Your task to perform on an android device: star an email in the gmail app Image 0: 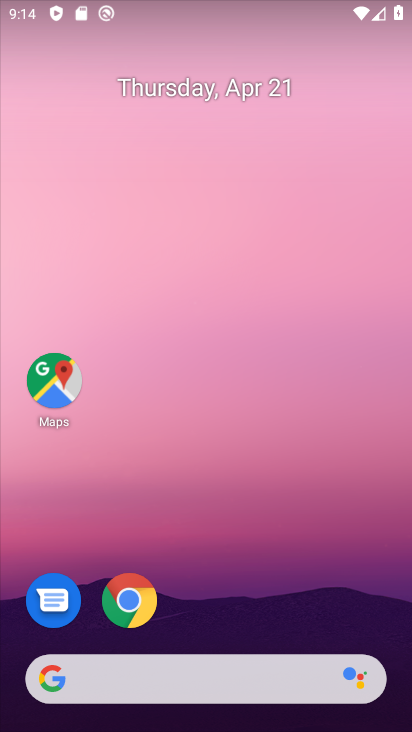
Step 0: drag from (265, 578) to (251, 99)
Your task to perform on an android device: star an email in the gmail app Image 1: 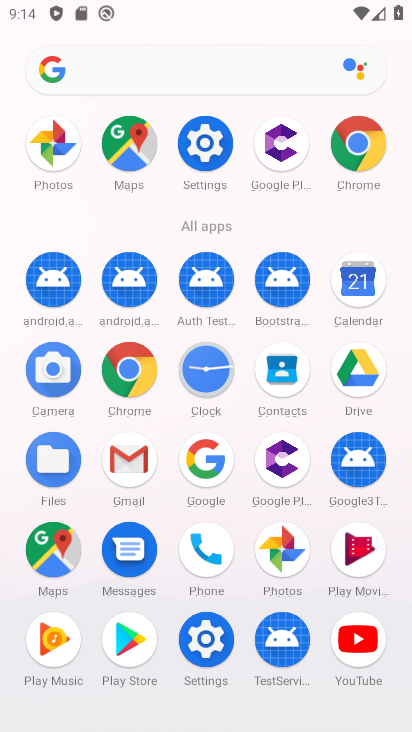
Step 1: click (136, 450)
Your task to perform on an android device: star an email in the gmail app Image 2: 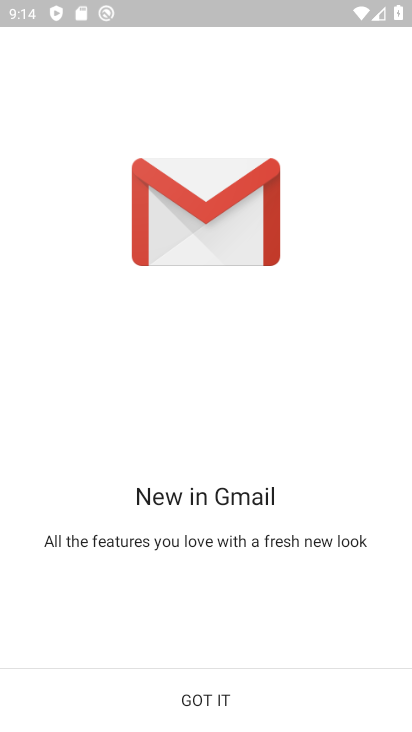
Step 2: click (207, 705)
Your task to perform on an android device: star an email in the gmail app Image 3: 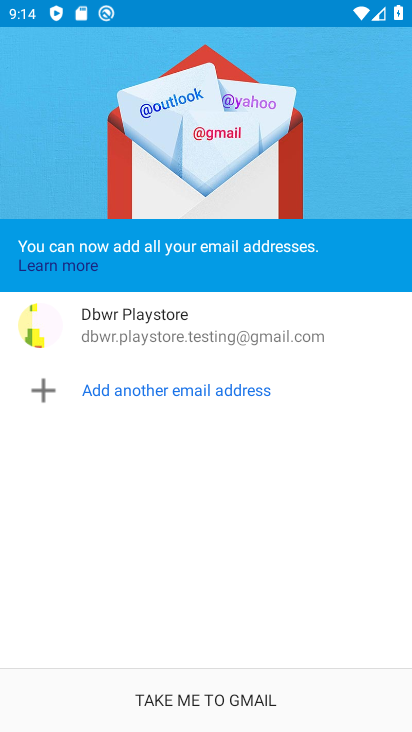
Step 3: click (186, 701)
Your task to perform on an android device: star an email in the gmail app Image 4: 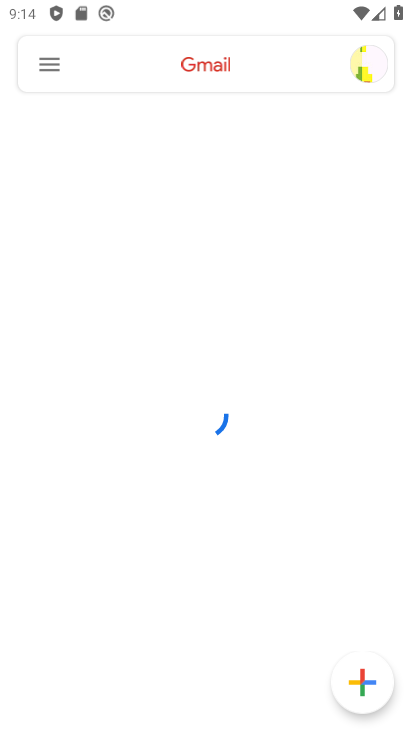
Step 4: click (47, 65)
Your task to perform on an android device: star an email in the gmail app Image 5: 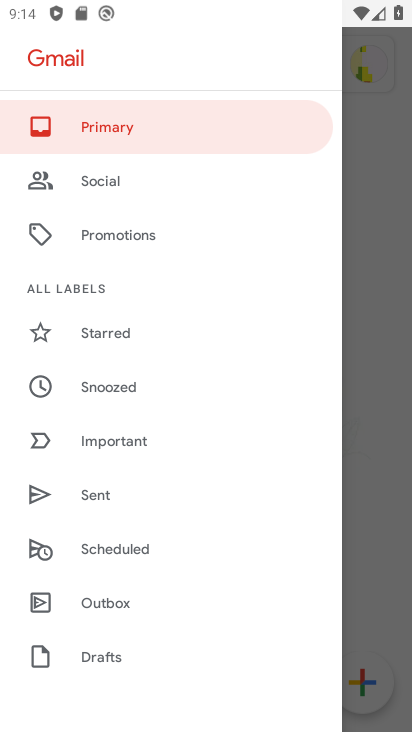
Step 5: drag from (127, 590) to (162, 310)
Your task to perform on an android device: star an email in the gmail app Image 6: 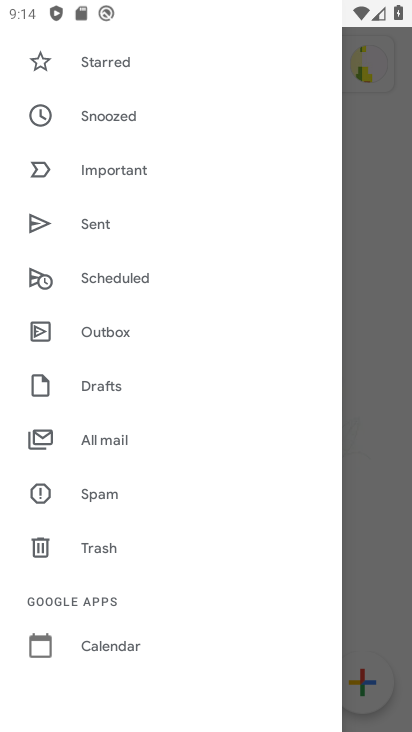
Step 6: click (109, 445)
Your task to perform on an android device: star an email in the gmail app Image 7: 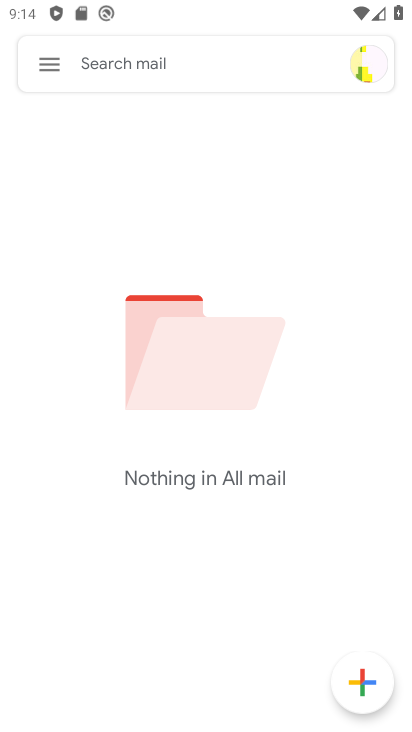
Step 7: task complete